Your task to perform on an android device: turn on the 12-hour format for clock Image 0: 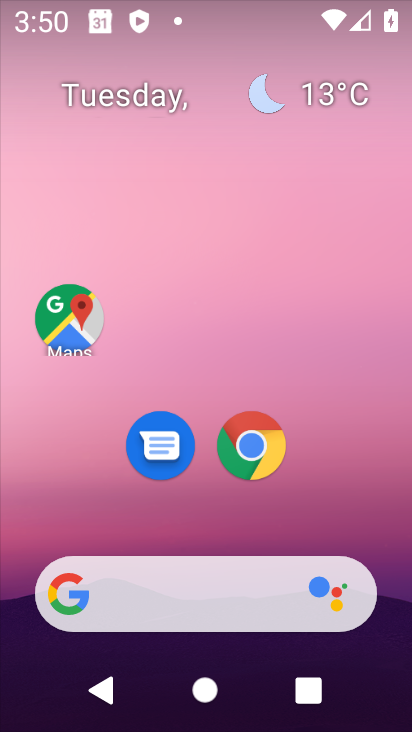
Step 0: drag from (167, 724) to (300, 77)
Your task to perform on an android device: turn on the 12-hour format for clock Image 1: 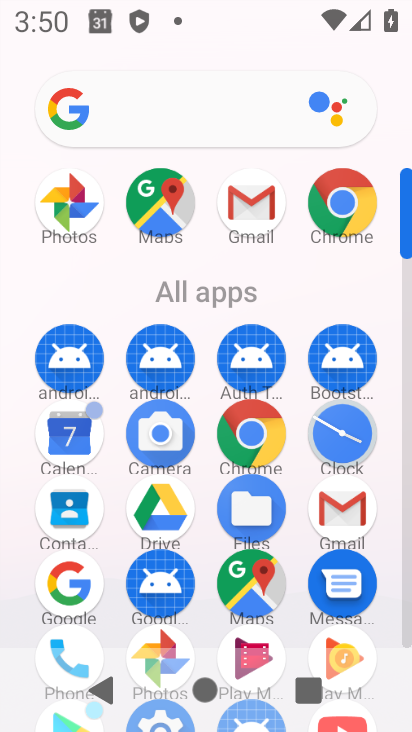
Step 1: drag from (196, 541) to (194, 88)
Your task to perform on an android device: turn on the 12-hour format for clock Image 2: 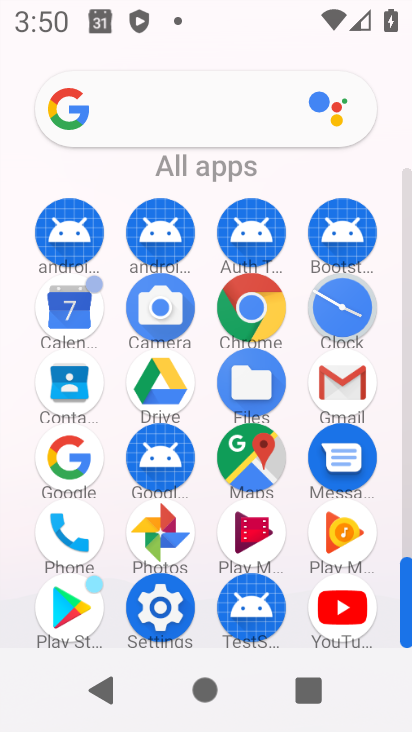
Step 2: click (167, 608)
Your task to perform on an android device: turn on the 12-hour format for clock Image 3: 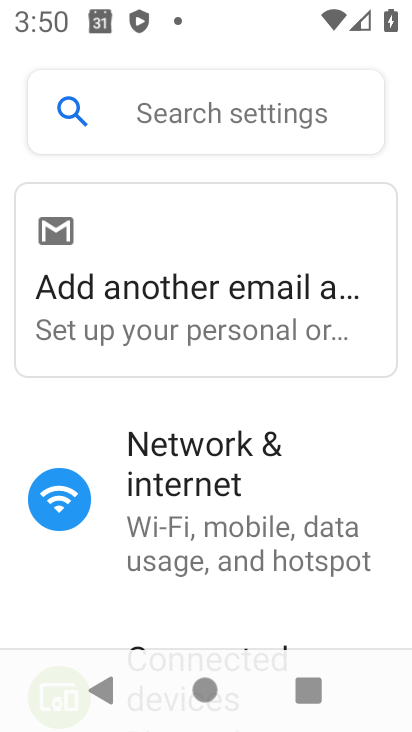
Step 3: drag from (290, 600) to (282, 116)
Your task to perform on an android device: turn on the 12-hour format for clock Image 4: 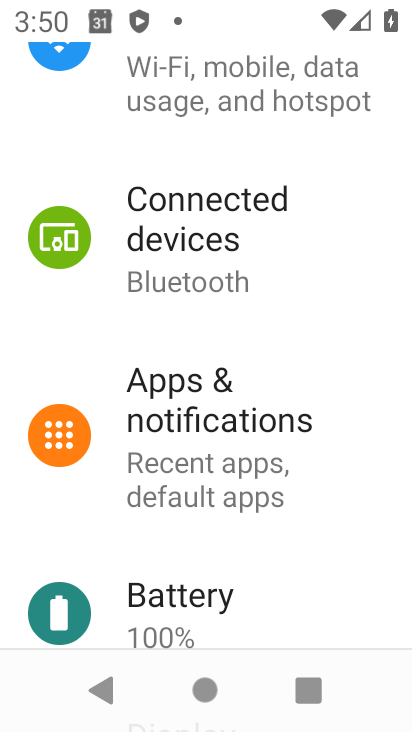
Step 4: drag from (317, 568) to (290, 41)
Your task to perform on an android device: turn on the 12-hour format for clock Image 5: 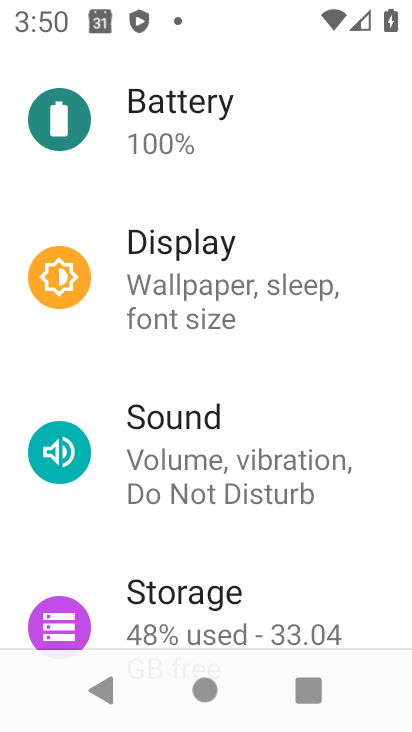
Step 5: drag from (325, 587) to (292, 91)
Your task to perform on an android device: turn on the 12-hour format for clock Image 6: 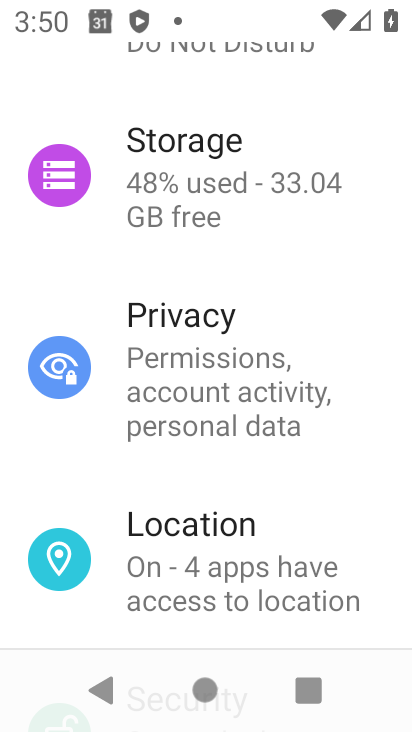
Step 6: drag from (292, 611) to (245, 124)
Your task to perform on an android device: turn on the 12-hour format for clock Image 7: 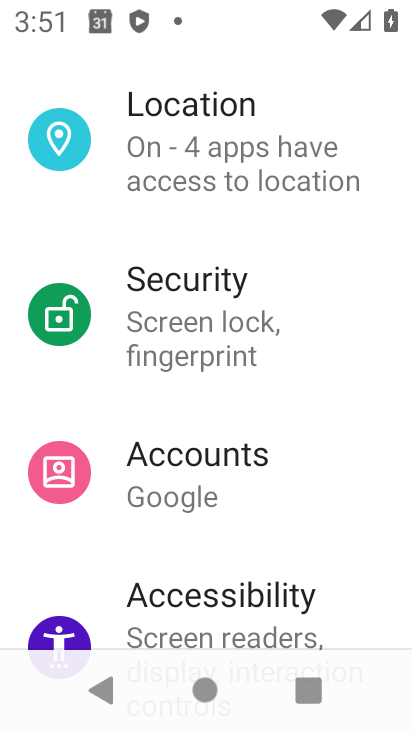
Step 7: drag from (298, 528) to (319, 143)
Your task to perform on an android device: turn on the 12-hour format for clock Image 8: 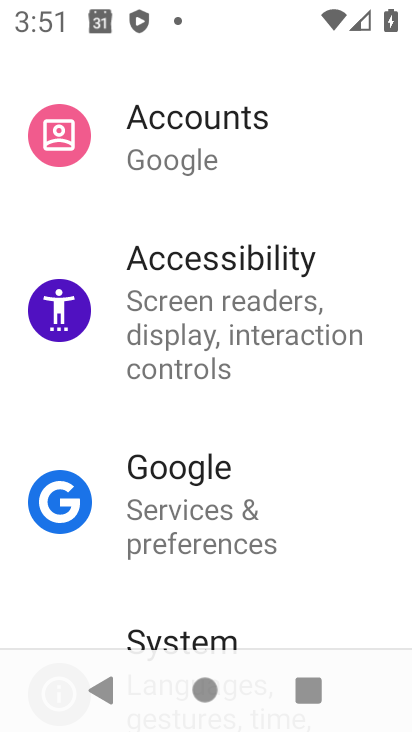
Step 8: drag from (248, 574) to (252, 258)
Your task to perform on an android device: turn on the 12-hour format for clock Image 9: 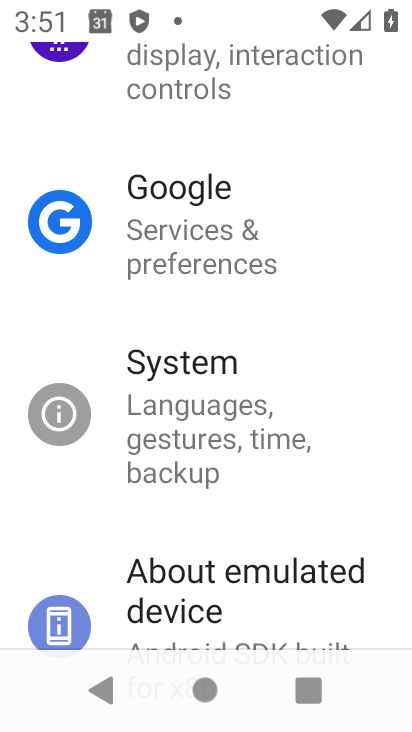
Step 9: click (236, 447)
Your task to perform on an android device: turn on the 12-hour format for clock Image 10: 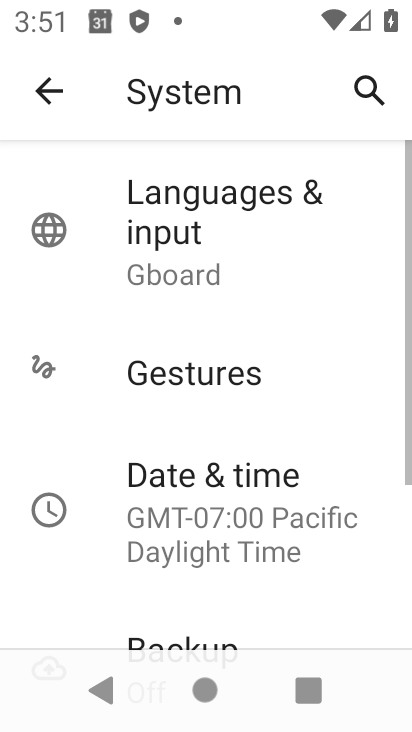
Step 10: click (246, 517)
Your task to perform on an android device: turn on the 12-hour format for clock Image 11: 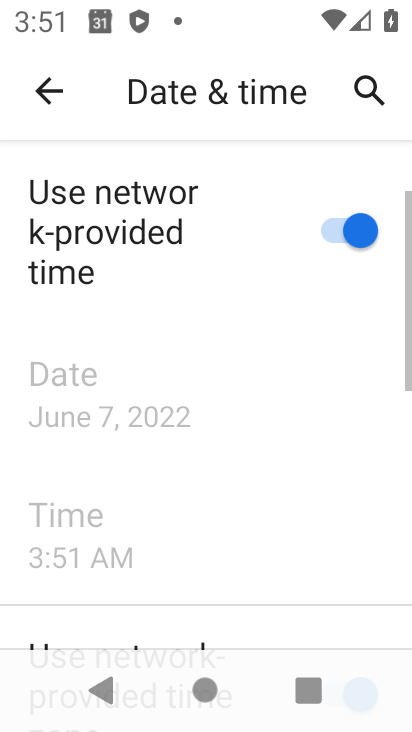
Step 11: drag from (226, 535) to (210, 204)
Your task to perform on an android device: turn on the 12-hour format for clock Image 12: 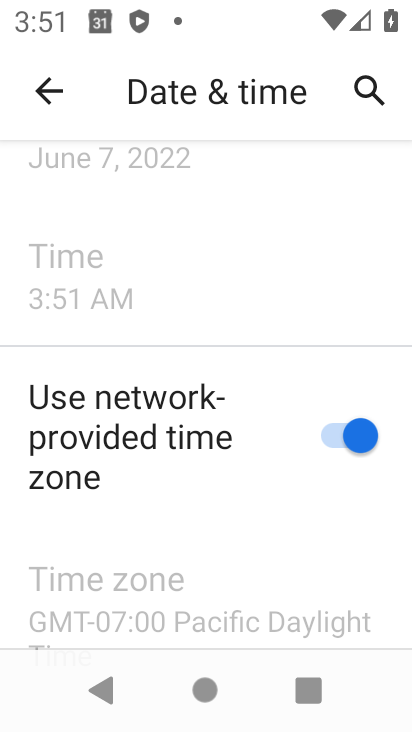
Step 12: click (182, 190)
Your task to perform on an android device: turn on the 12-hour format for clock Image 13: 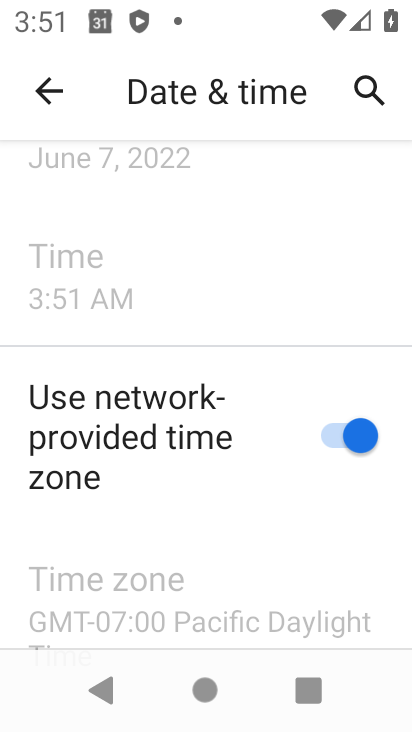
Step 13: task complete